Your task to perform on an android device: set the timer Image 0: 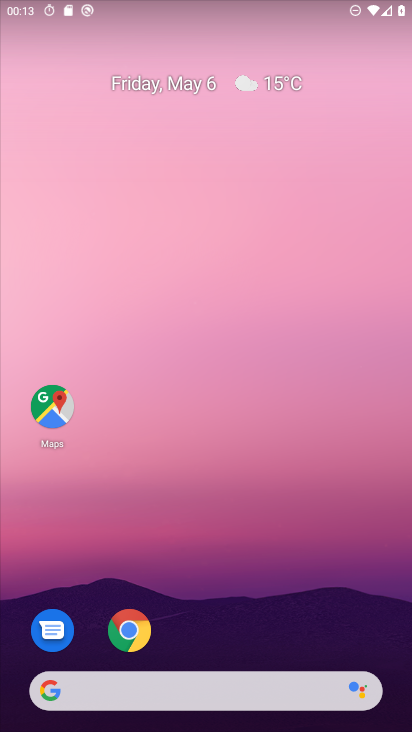
Step 0: drag from (259, 580) to (227, 76)
Your task to perform on an android device: set the timer Image 1: 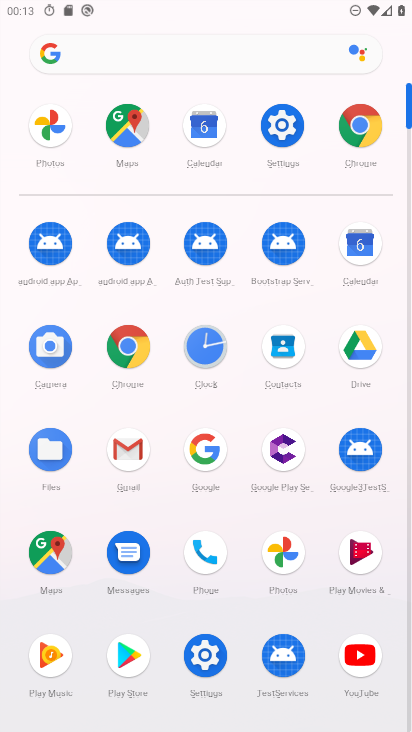
Step 1: click (210, 345)
Your task to perform on an android device: set the timer Image 2: 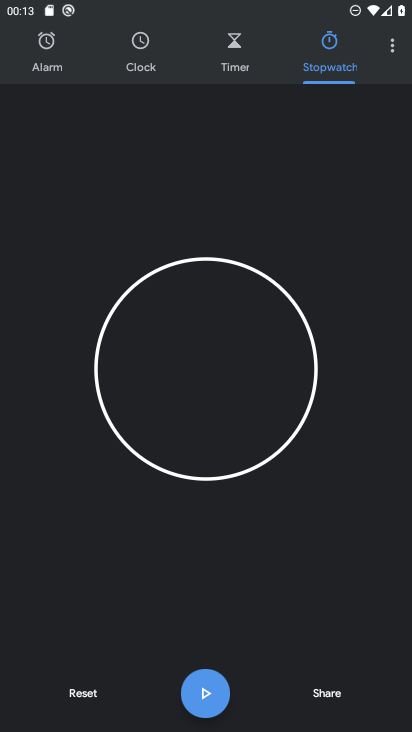
Step 2: click (227, 50)
Your task to perform on an android device: set the timer Image 3: 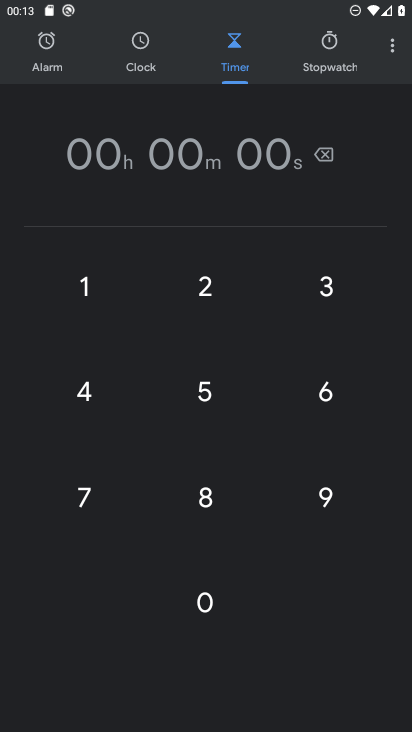
Step 3: click (199, 399)
Your task to perform on an android device: set the timer Image 4: 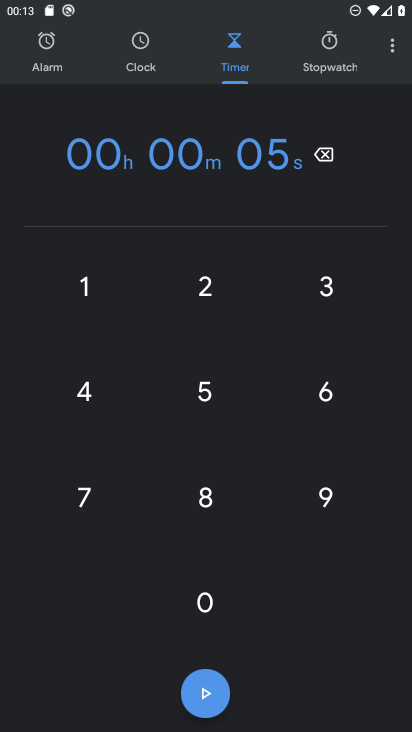
Step 4: task complete